Your task to perform on an android device: turn off improve location accuracy Image 0: 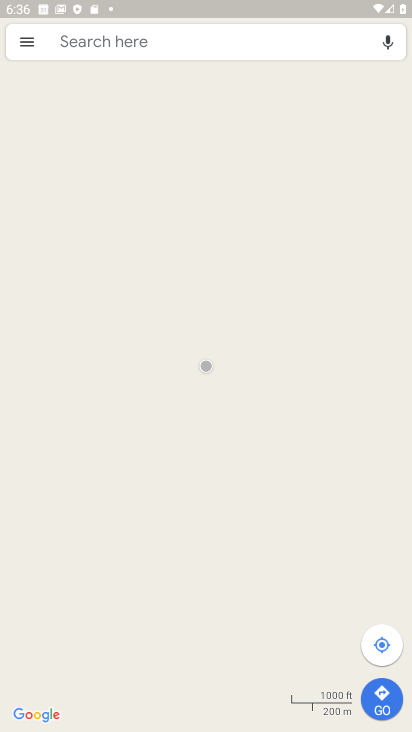
Step 0: press home button
Your task to perform on an android device: turn off improve location accuracy Image 1: 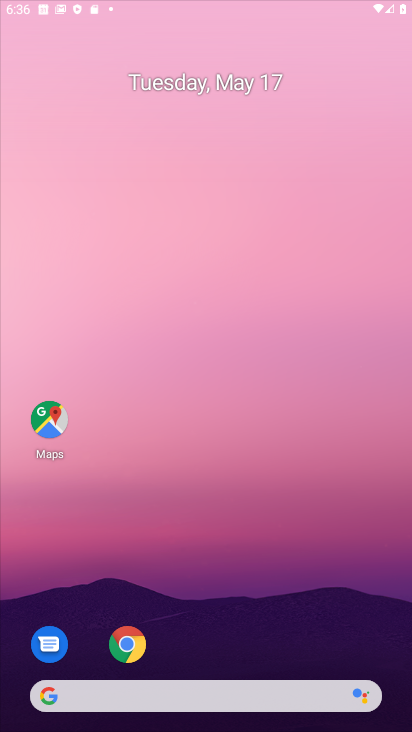
Step 1: drag from (381, 645) to (223, 55)
Your task to perform on an android device: turn off improve location accuracy Image 2: 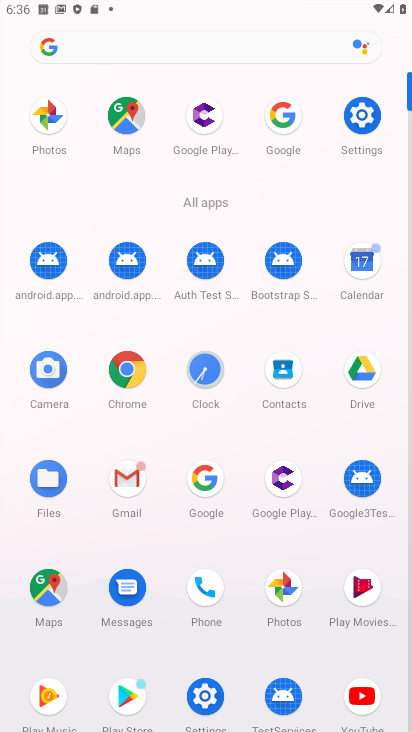
Step 2: click (353, 121)
Your task to perform on an android device: turn off improve location accuracy Image 3: 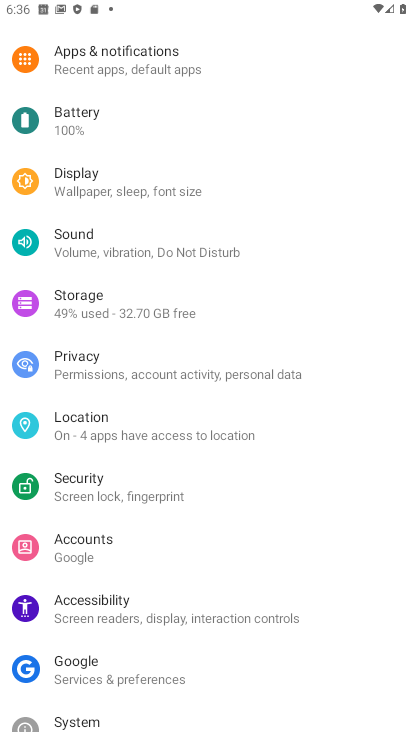
Step 3: click (131, 448)
Your task to perform on an android device: turn off improve location accuracy Image 4: 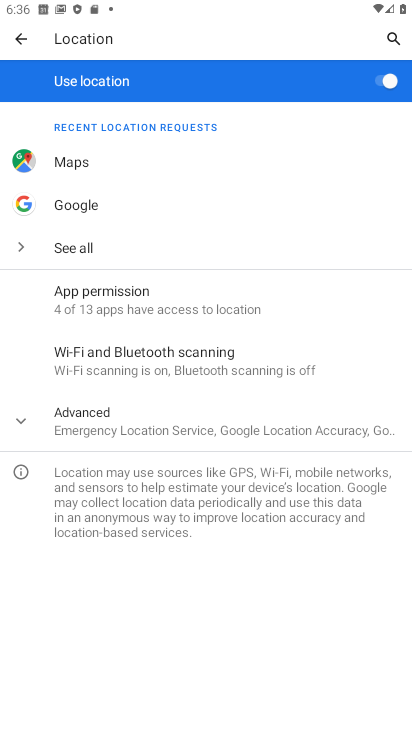
Step 4: click (129, 425)
Your task to perform on an android device: turn off improve location accuracy Image 5: 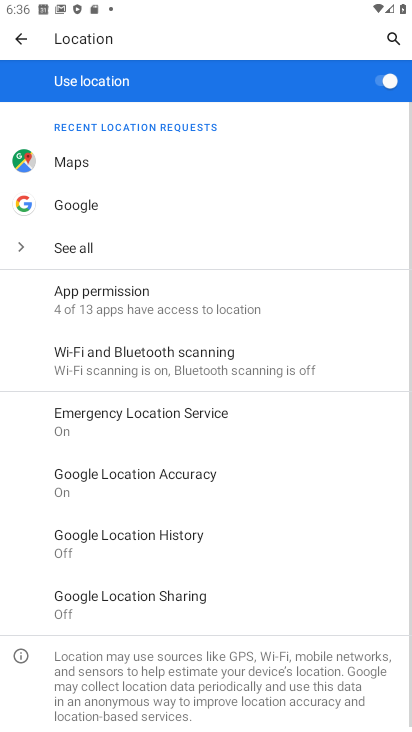
Step 5: click (199, 480)
Your task to perform on an android device: turn off improve location accuracy Image 6: 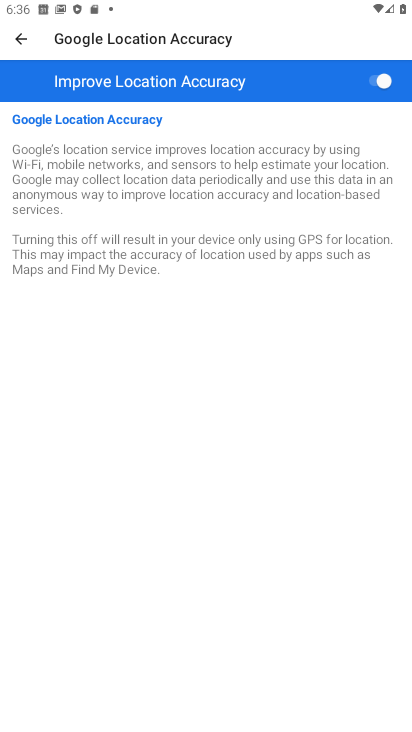
Step 6: click (363, 78)
Your task to perform on an android device: turn off improve location accuracy Image 7: 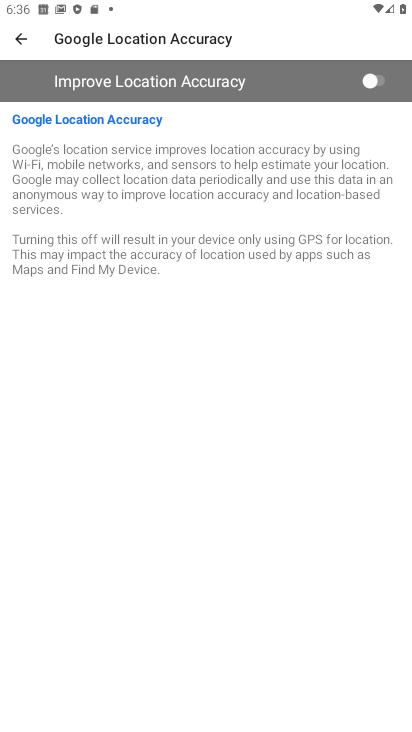
Step 7: task complete